Your task to perform on an android device: set an alarm Image 0: 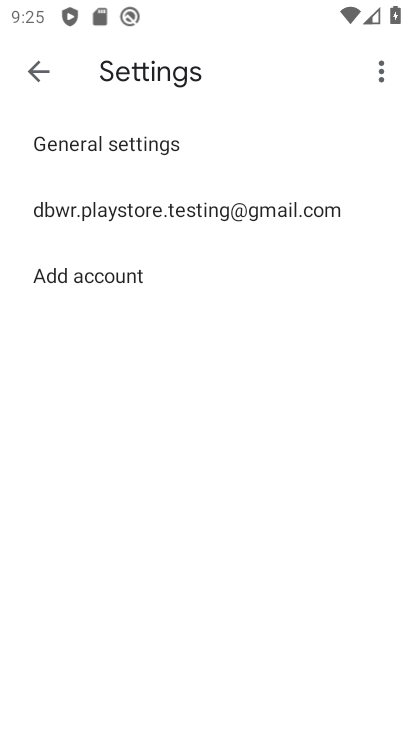
Step 0: press back button
Your task to perform on an android device: set an alarm Image 1: 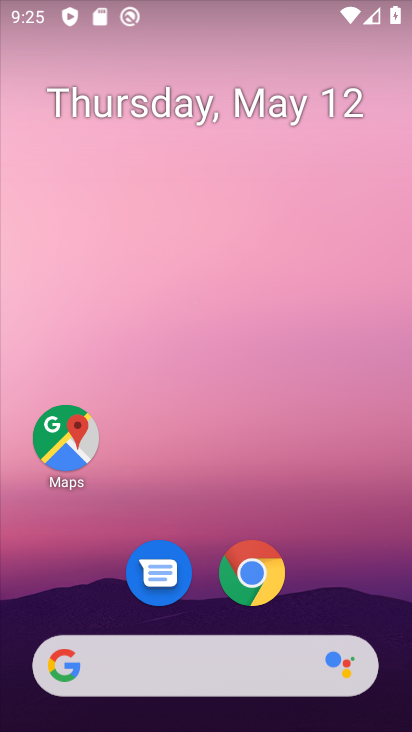
Step 1: drag from (321, 569) to (222, 26)
Your task to perform on an android device: set an alarm Image 2: 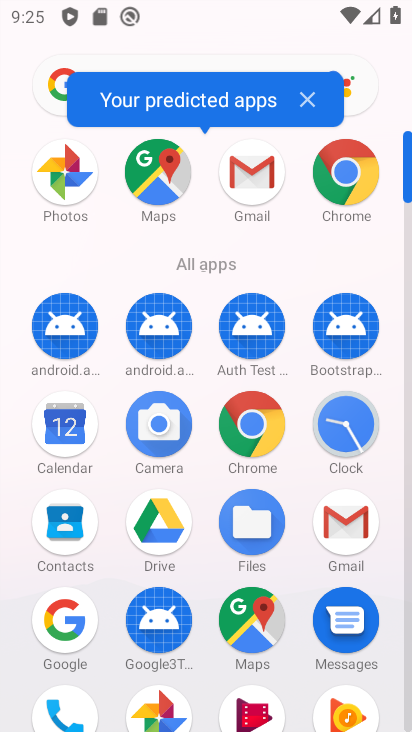
Step 2: click (349, 426)
Your task to perform on an android device: set an alarm Image 3: 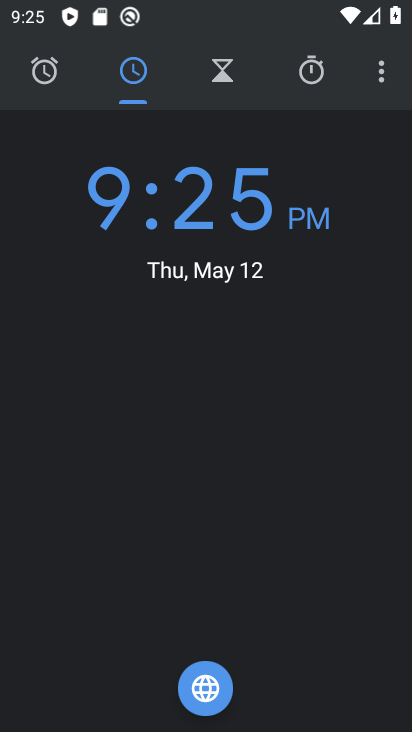
Step 3: click (47, 77)
Your task to perform on an android device: set an alarm Image 4: 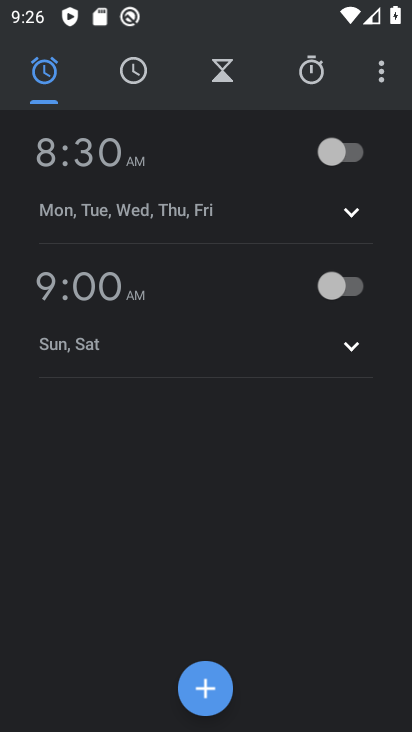
Step 4: click (205, 688)
Your task to perform on an android device: set an alarm Image 5: 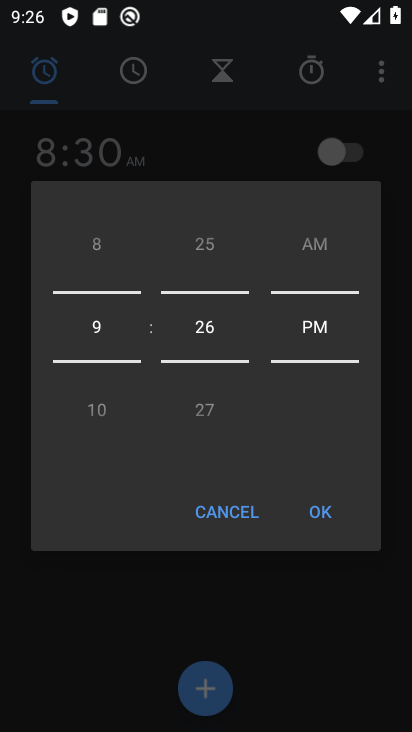
Step 5: drag from (103, 252) to (98, 420)
Your task to perform on an android device: set an alarm Image 6: 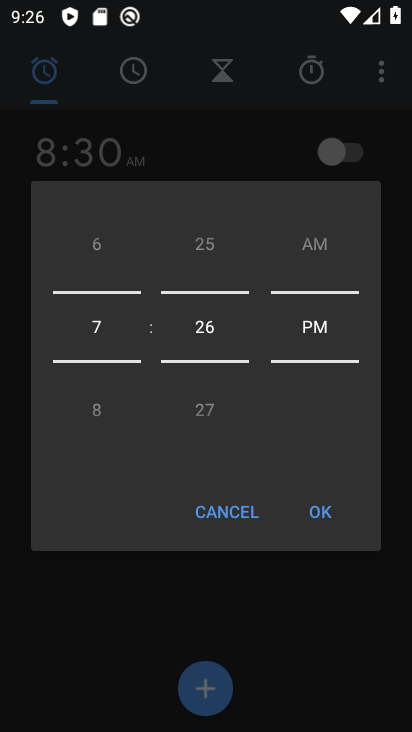
Step 6: drag from (185, 364) to (213, 424)
Your task to perform on an android device: set an alarm Image 7: 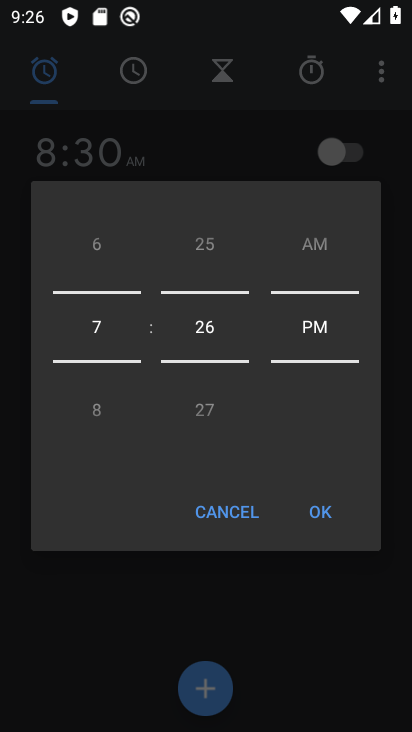
Step 7: drag from (320, 247) to (353, 429)
Your task to perform on an android device: set an alarm Image 8: 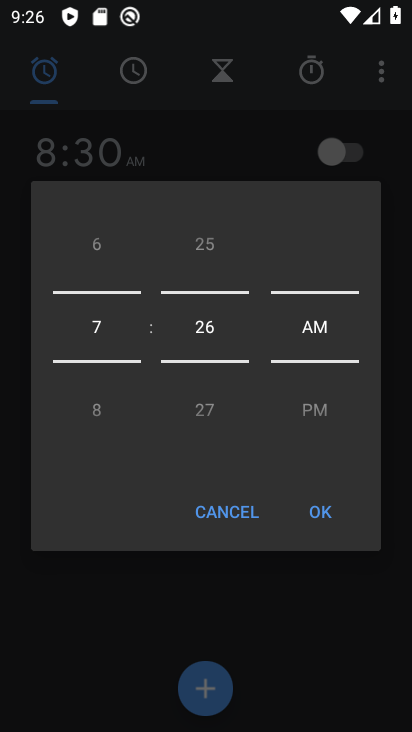
Step 8: drag from (224, 247) to (241, 435)
Your task to perform on an android device: set an alarm Image 9: 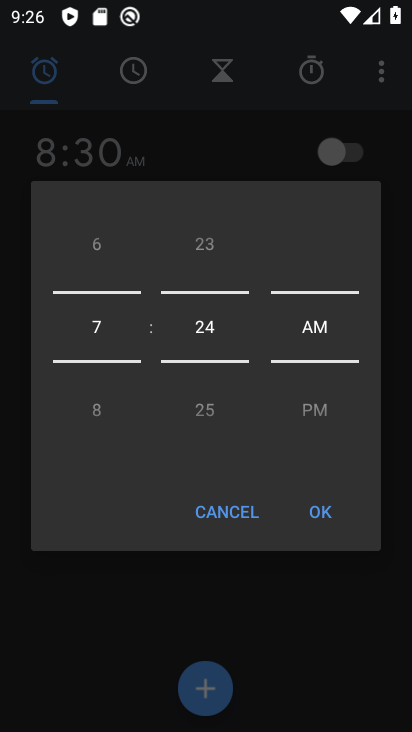
Step 9: click (308, 516)
Your task to perform on an android device: set an alarm Image 10: 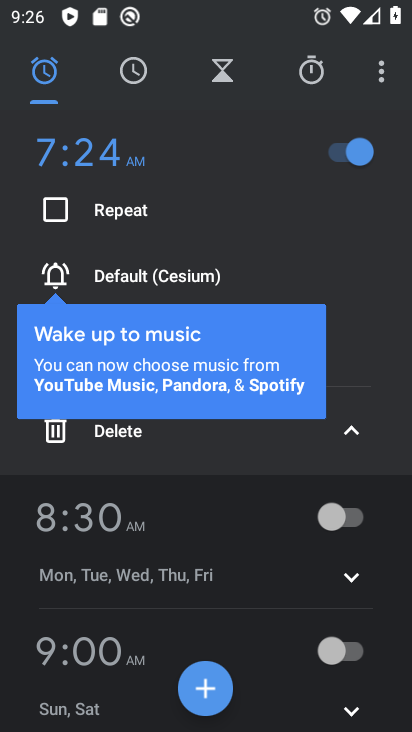
Step 10: click (353, 429)
Your task to perform on an android device: set an alarm Image 11: 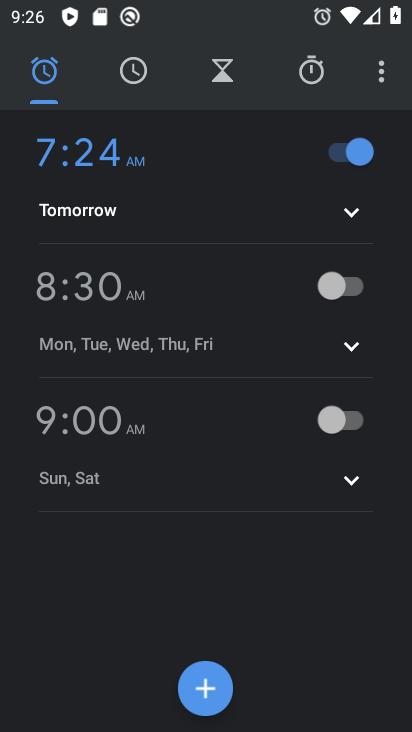
Step 11: task complete